Your task to perform on an android device: turn off improve location accuracy Image 0: 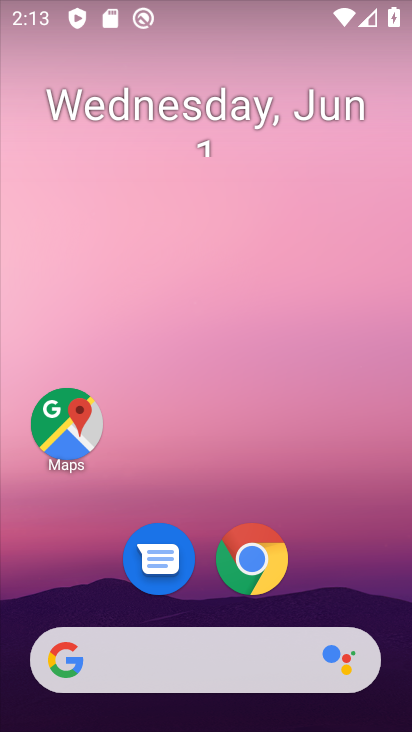
Step 0: task complete